Your task to perform on an android device: make emails show in primary in the gmail app Image 0: 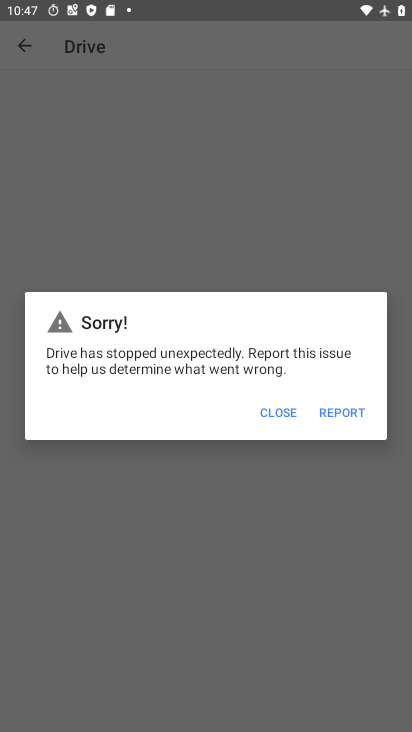
Step 0: press home button
Your task to perform on an android device: make emails show in primary in the gmail app Image 1: 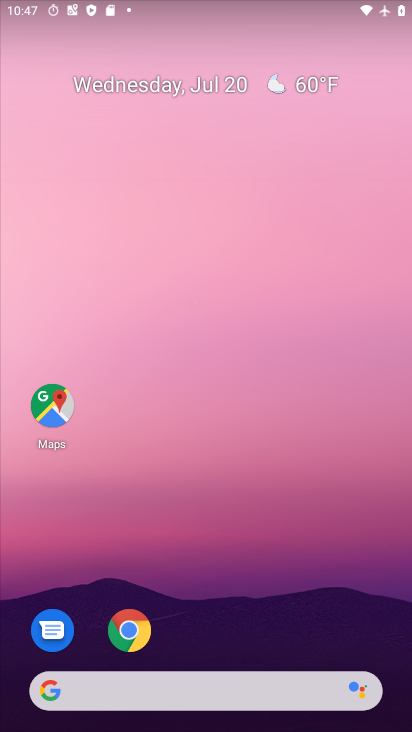
Step 1: drag from (240, 649) to (229, 122)
Your task to perform on an android device: make emails show in primary in the gmail app Image 2: 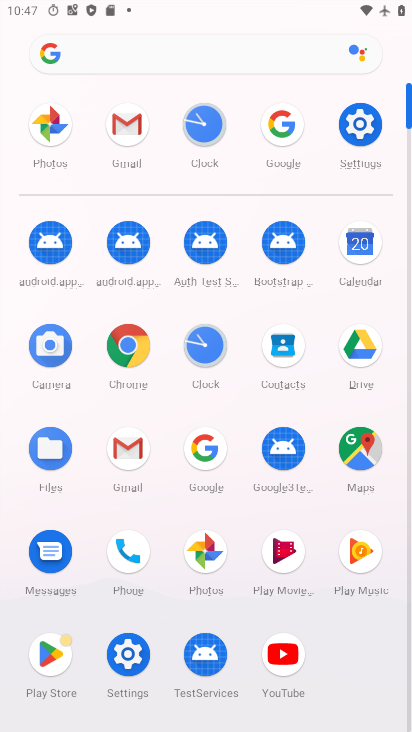
Step 2: click (126, 128)
Your task to perform on an android device: make emails show in primary in the gmail app Image 3: 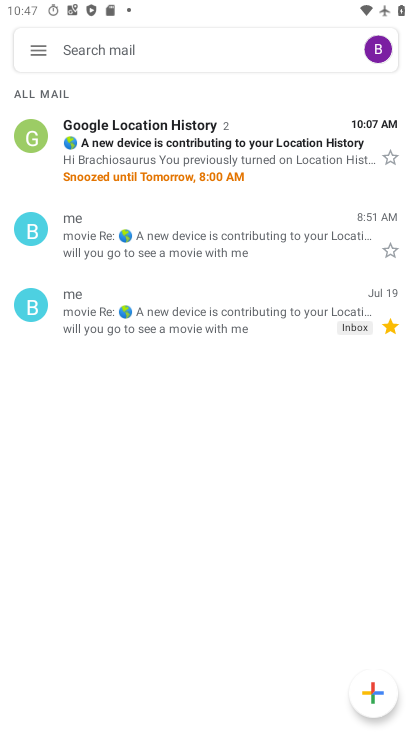
Step 3: click (43, 50)
Your task to perform on an android device: make emails show in primary in the gmail app Image 4: 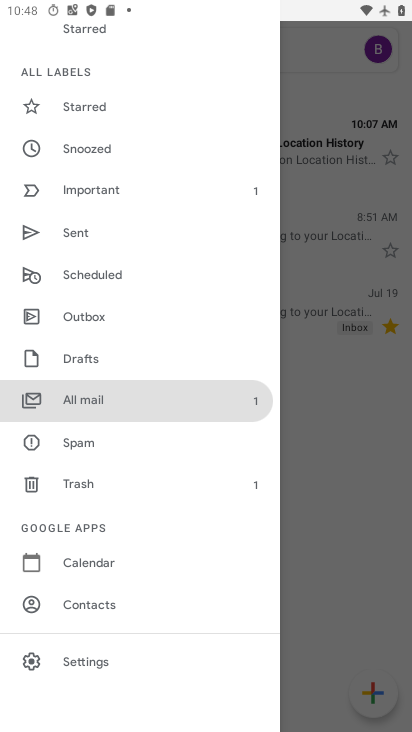
Step 4: click (94, 660)
Your task to perform on an android device: make emails show in primary in the gmail app Image 5: 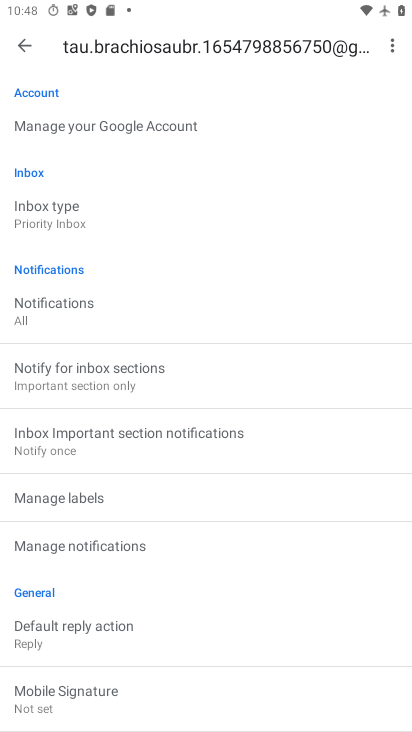
Step 5: click (96, 219)
Your task to perform on an android device: make emails show in primary in the gmail app Image 6: 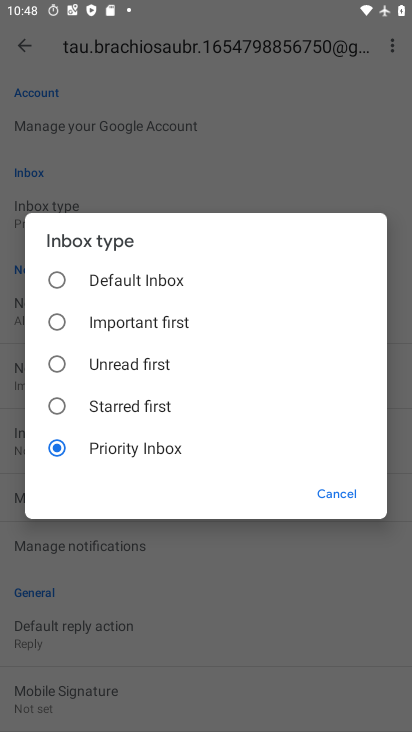
Step 6: click (62, 276)
Your task to perform on an android device: make emails show in primary in the gmail app Image 7: 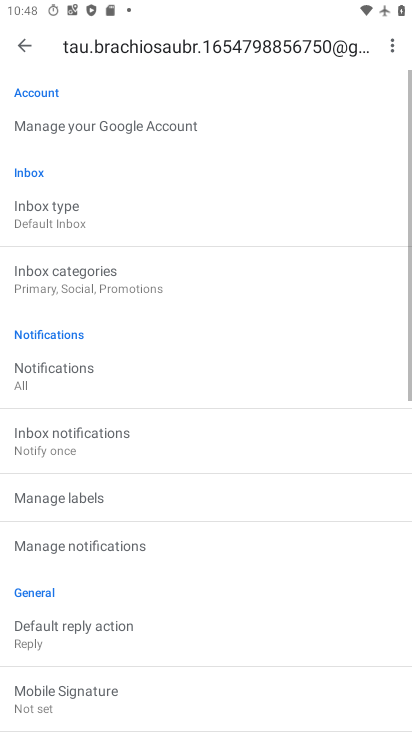
Step 7: click (81, 281)
Your task to perform on an android device: make emails show in primary in the gmail app Image 8: 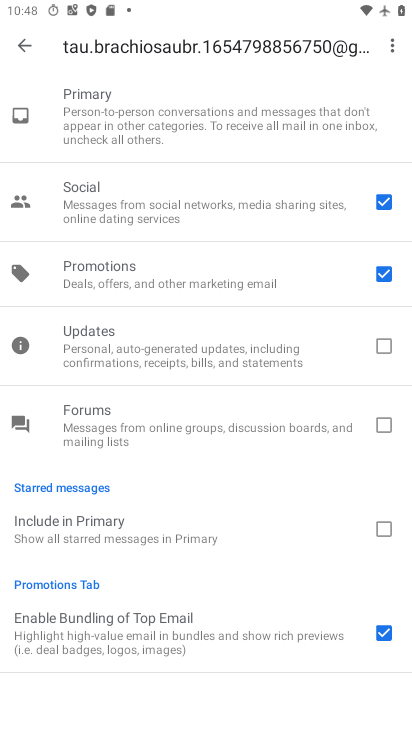
Step 8: click (386, 271)
Your task to perform on an android device: make emails show in primary in the gmail app Image 9: 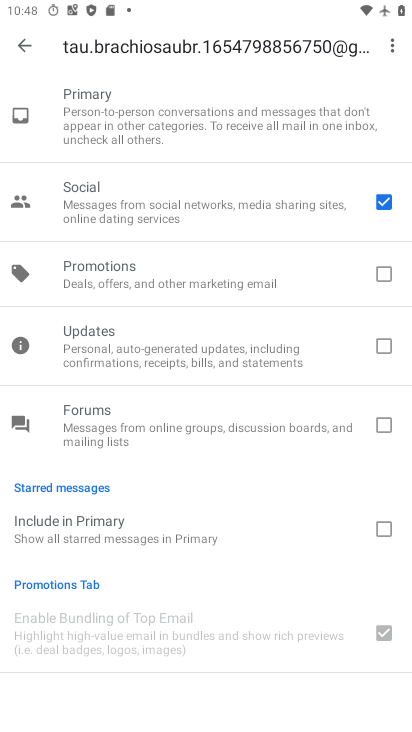
Step 9: click (384, 210)
Your task to perform on an android device: make emails show in primary in the gmail app Image 10: 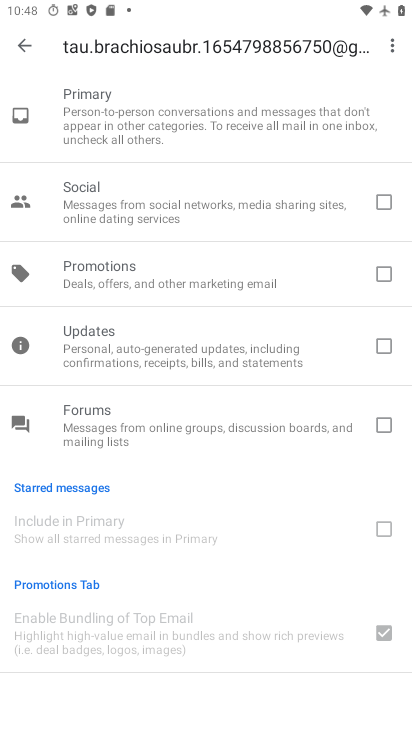
Step 10: task complete